Your task to perform on an android device: Go to display settings Image 0: 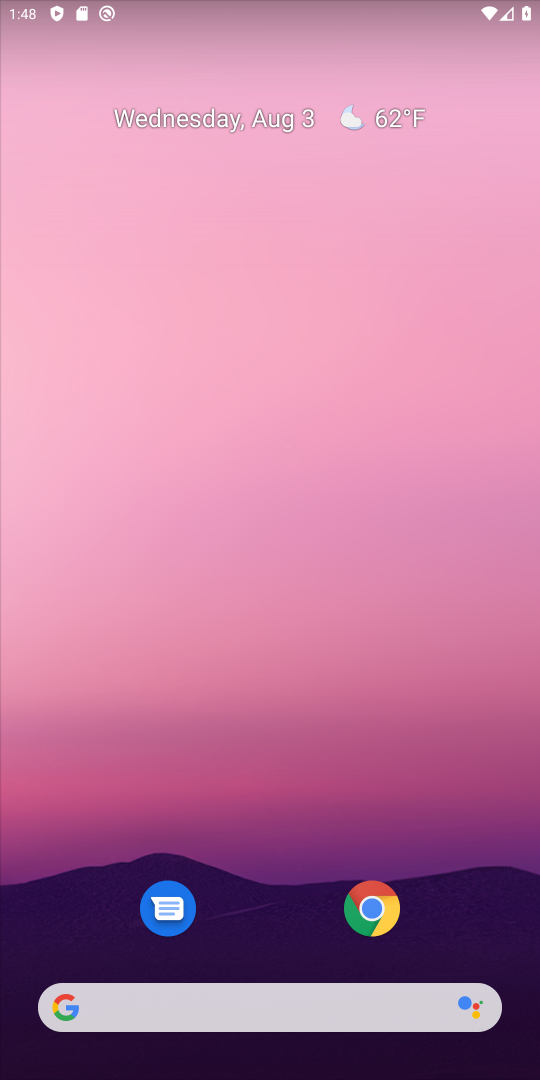
Step 0: drag from (232, 1045) to (278, 176)
Your task to perform on an android device: Go to display settings Image 1: 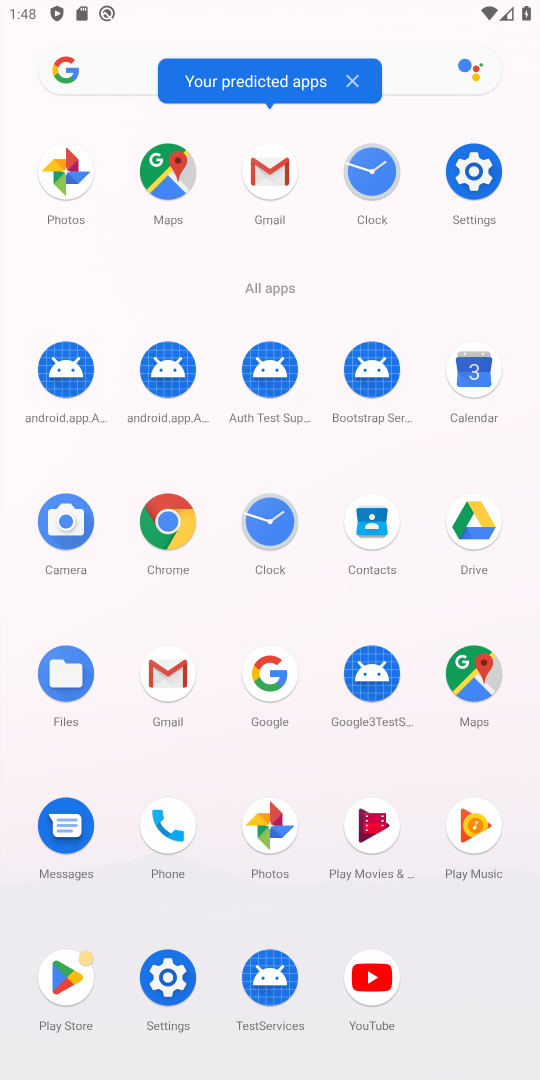
Step 1: click (462, 169)
Your task to perform on an android device: Go to display settings Image 2: 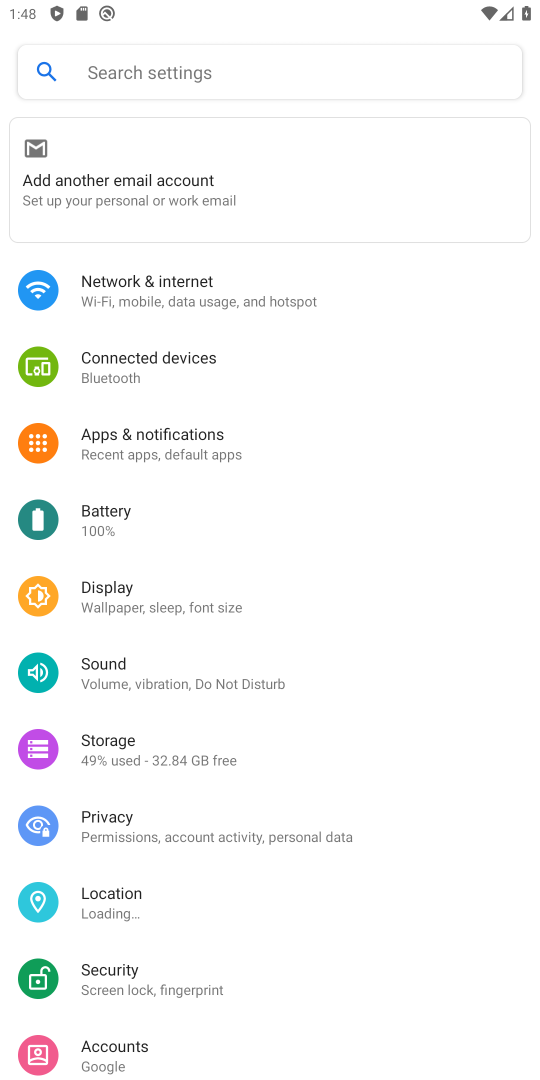
Step 2: click (196, 613)
Your task to perform on an android device: Go to display settings Image 3: 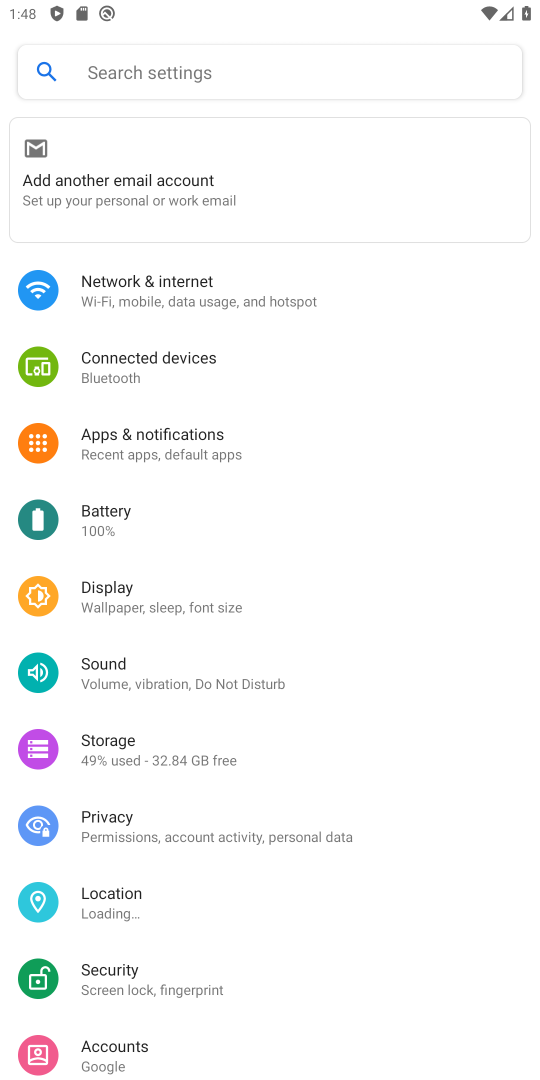
Step 3: click (196, 613)
Your task to perform on an android device: Go to display settings Image 4: 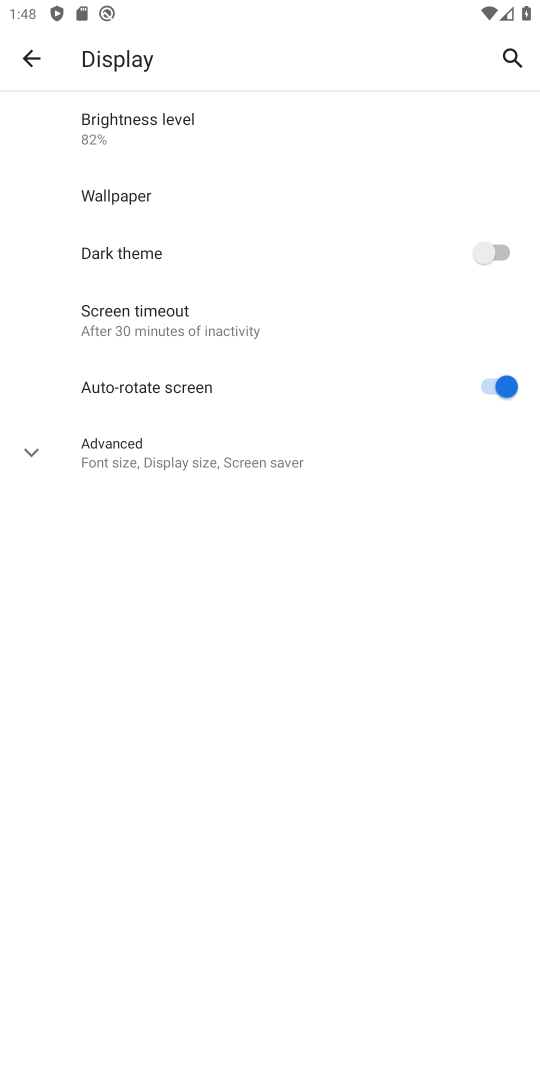
Step 4: task complete